Your task to perform on an android device: change the upload size in google photos Image 0: 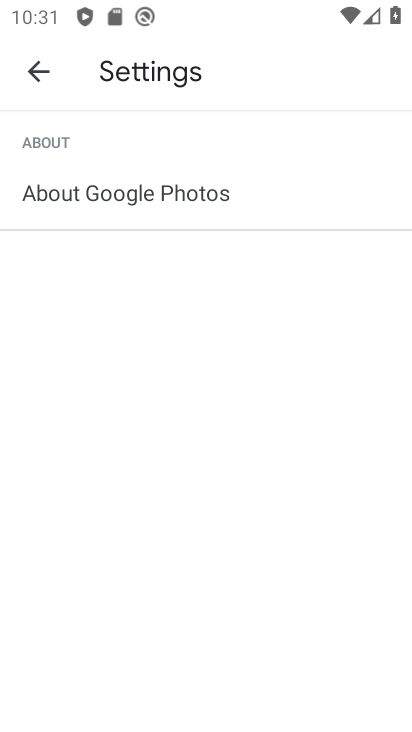
Step 0: press home button
Your task to perform on an android device: change the upload size in google photos Image 1: 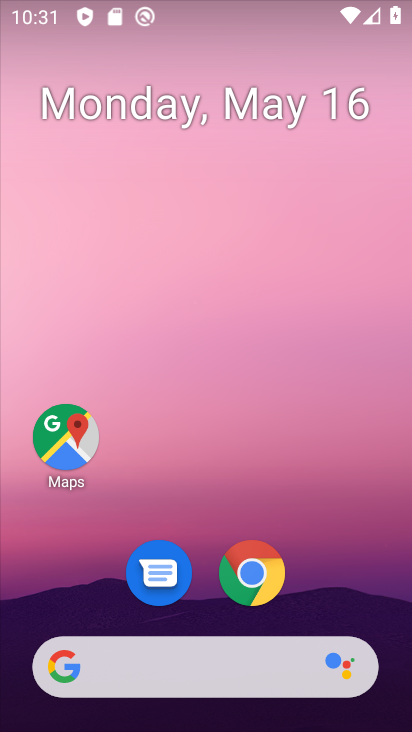
Step 1: drag from (245, 709) to (208, 82)
Your task to perform on an android device: change the upload size in google photos Image 2: 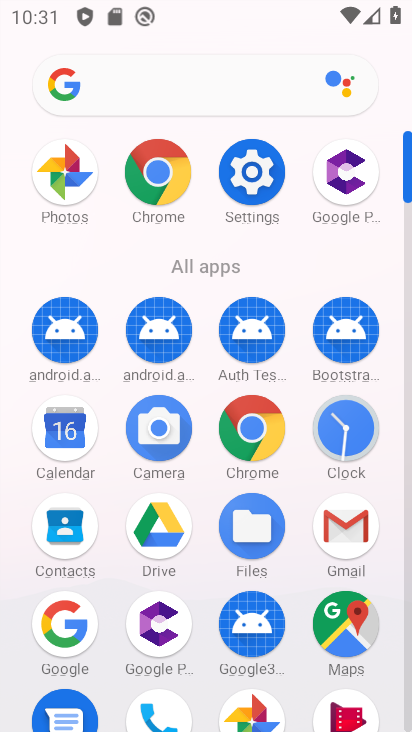
Step 2: drag from (268, 572) to (282, 469)
Your task to perform on an android device: change the upload size in google photos Image 3: 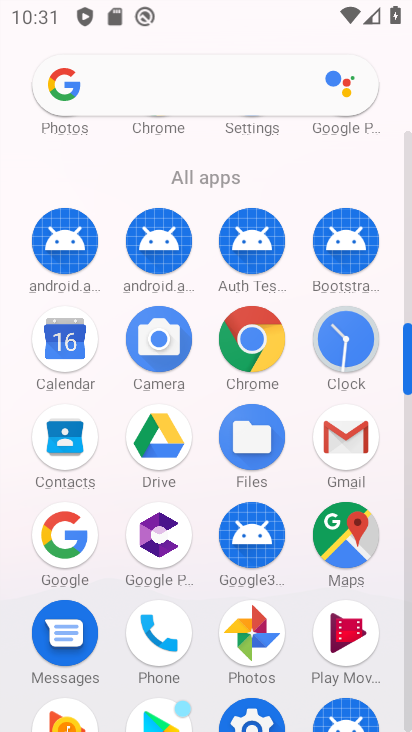
Step 3: drag from (290, 603) to (303, 440)
Your task to perform on an android device: change the upload size in google photos Image 4: 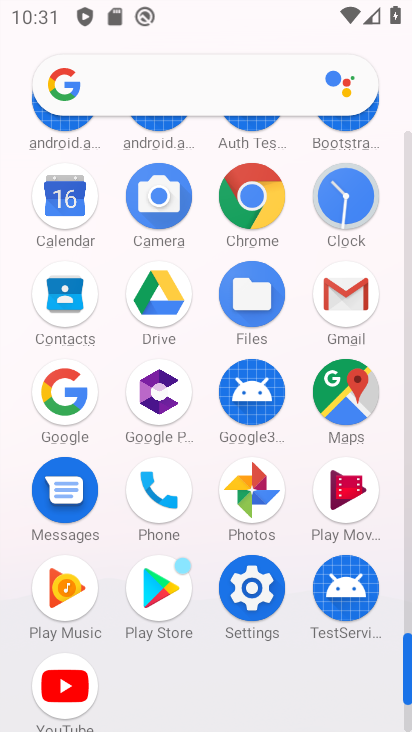
Step 4: click (264, 518)
Your task to perform on an android device: change the upload size in google photos Image 5: 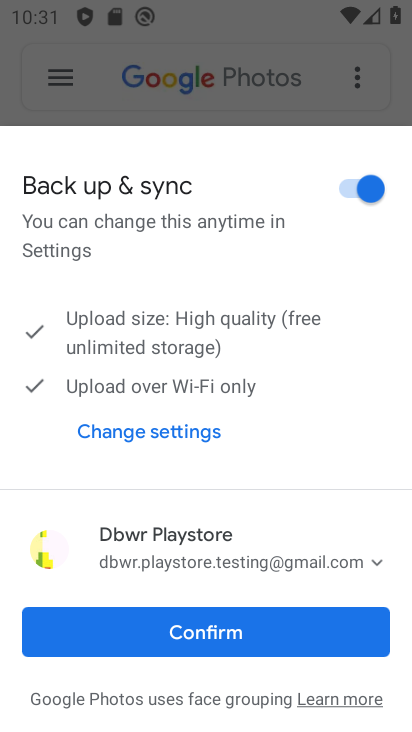
Step 5: press home button
Your task to perform on an android device: change the upload size in google photos Image 6: 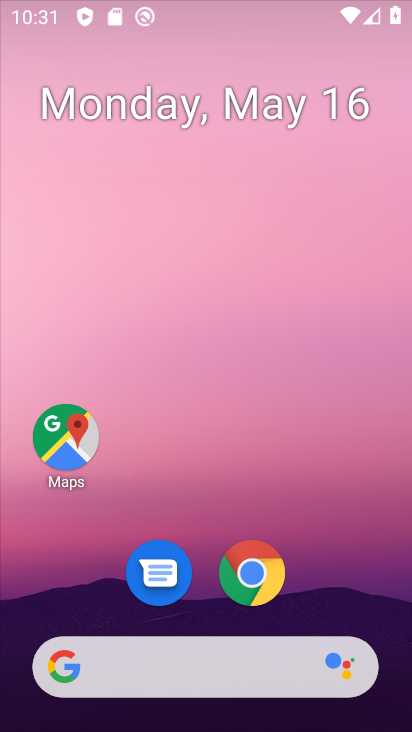
Step 6: drag from (314, 706) to (356, 185)
Your task to perform on an android device: change the upload size in google photos Image 7: 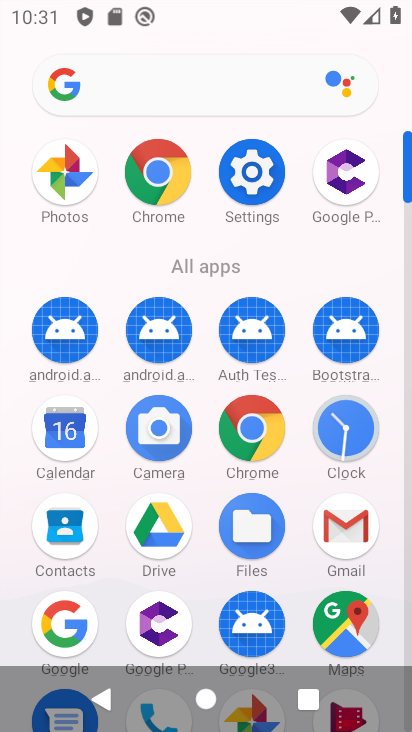
Step 7: drag from (333, 582) to (327, 350)
Your task to perform on an android device: change the upload size in google photos Image 8: 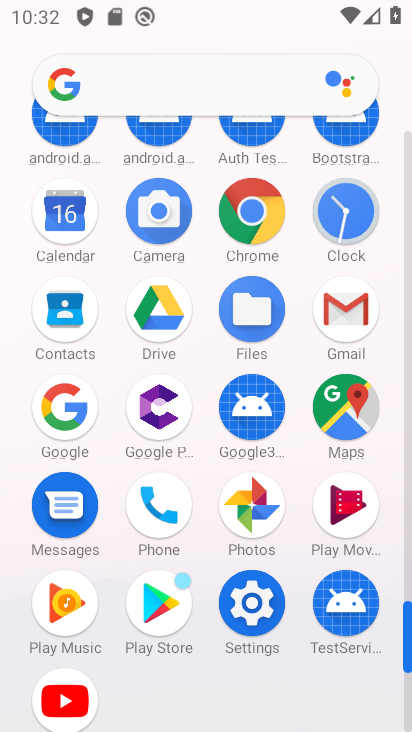
Step 8: click (264, 542)
Your task to perform on an android device: change the upload size in google photos Image 9: 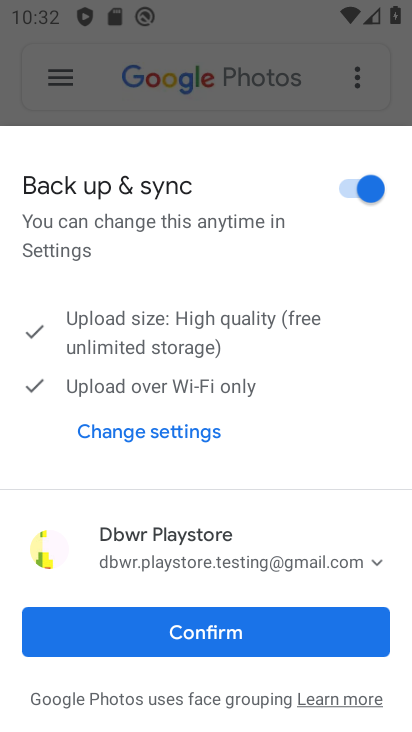
Step 9: click (285, 640)
Your task to perform on an android device: change the upload size in google photos Image 10: 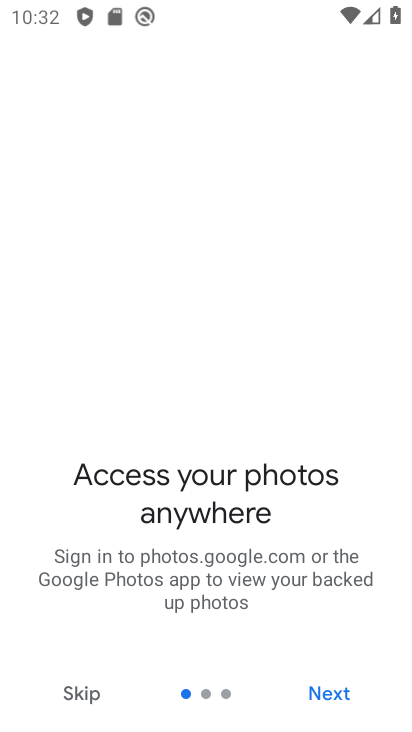
Step 10: click (341, 695)
Your task to perform on an android device: change the upload size in google photos Image 11: 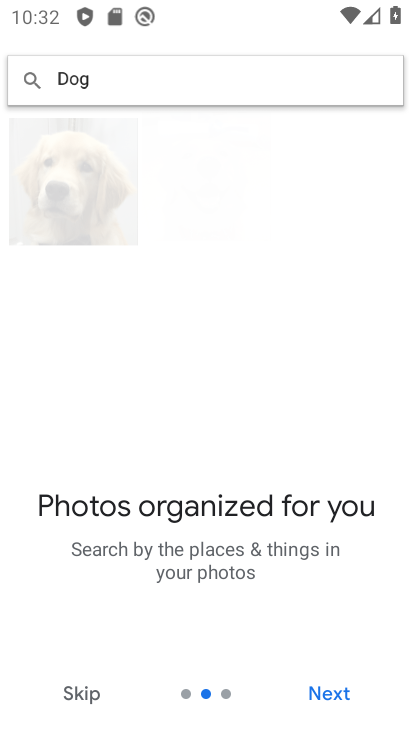
Step 11: click (341, 695)
Your task to perform on an android device: change the upload size in google photos Image 12: 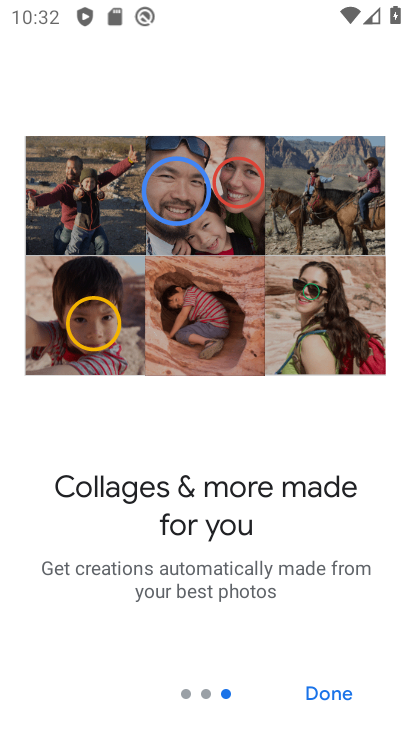
Step 12: click (341, 695)
Your task to perform on an android device: change the upload size in google photos Image 13: 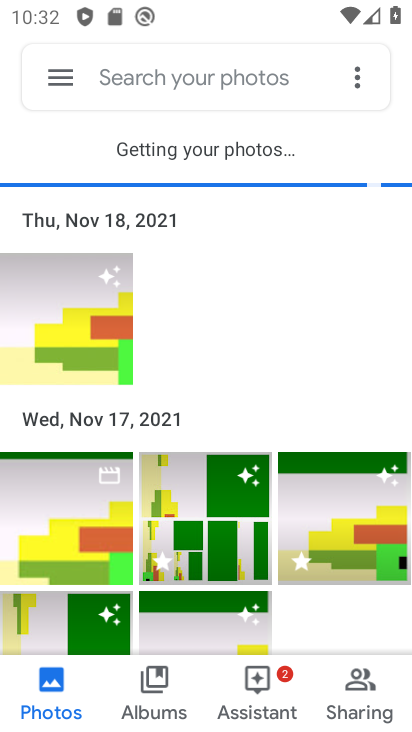
Step 13: click (55, 73)
Your task to perform on an android device: change the upload size in google photos Image 14: 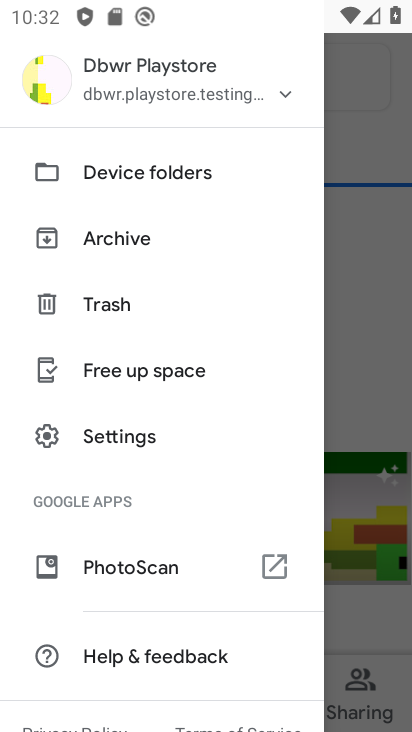
Step 14: click (166, 448)
Your task to perform on an android device: change the upload size in google photos Image 15: 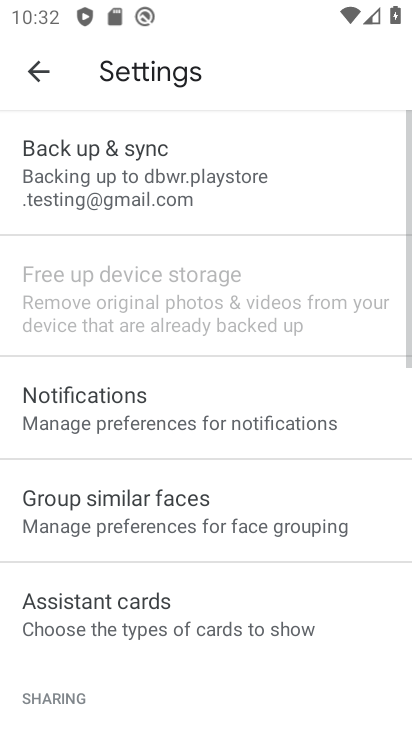
Step 15: click (194, 165)
Your task to perform on an android device: change the upload size in google photos Image 16: 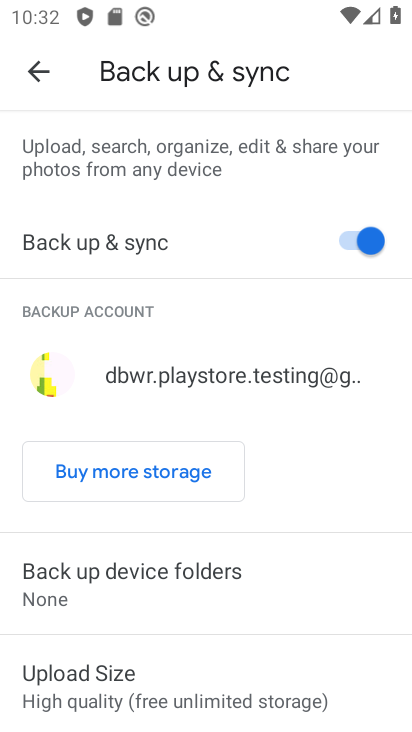
Step 16: click (240, 677)
Your task to perform on an android device: change the upload size in google photos Image 17: 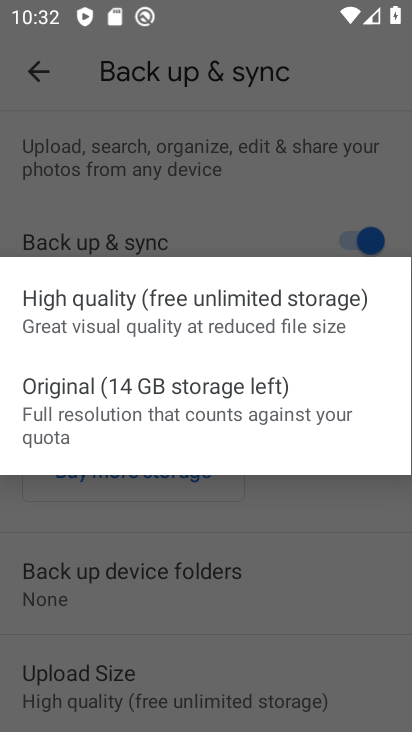
Step 17: click (223, 412)
Your task to perform on an android device: change the upload size in google photos Image 18: 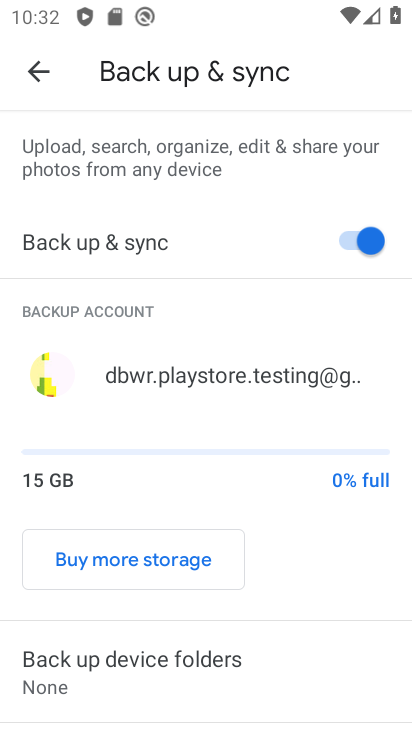
Step 18: task complete